Your task to perform on an android device: see creations saved in the google photos Image 0: 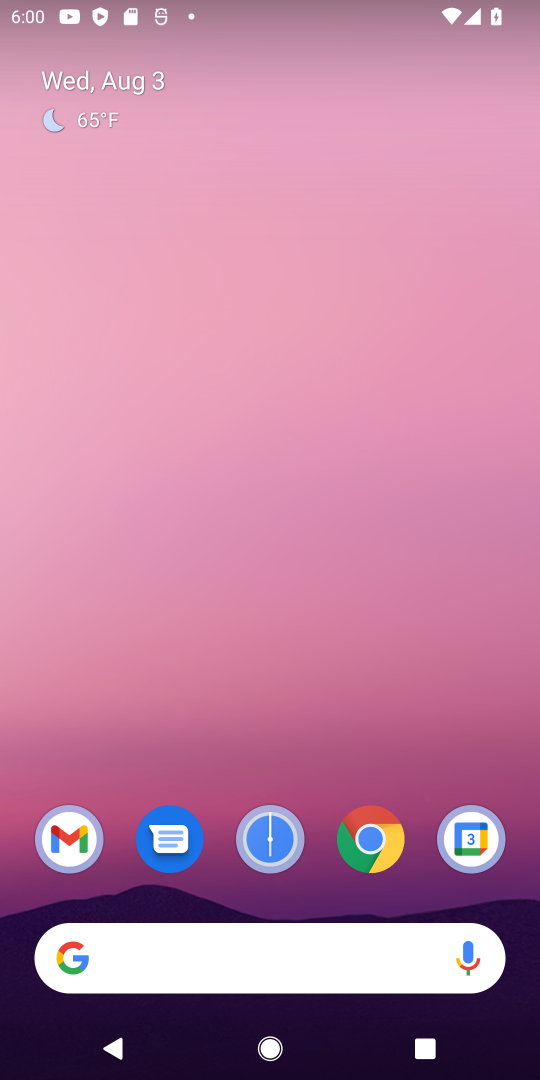
Step 0: drag from (232, 716) to (420, 86)
Your task to perform on an android device: see creations saved in the google photos Image 1: 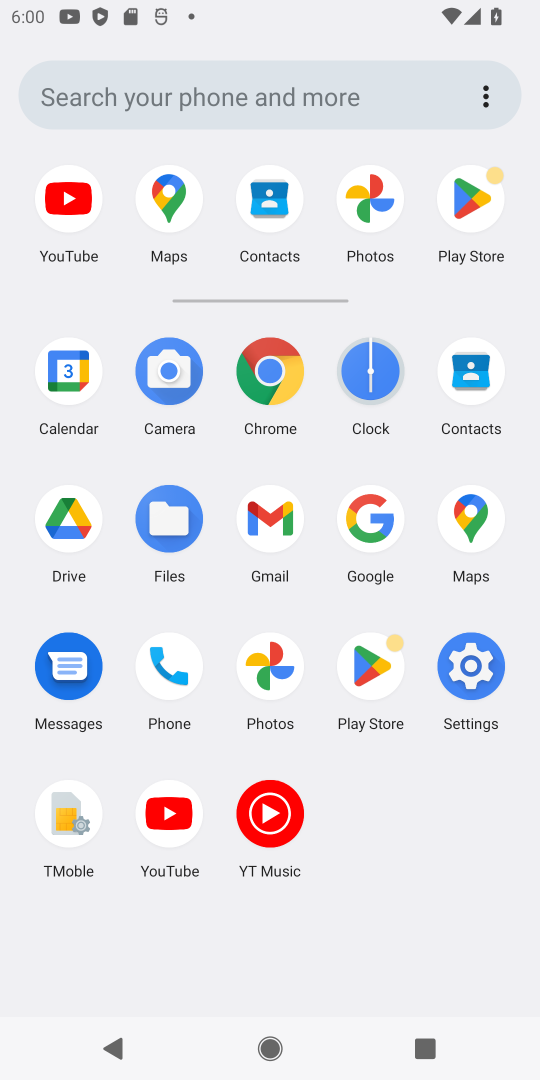
Step 1: click (280, 669)
Your task to perform on an android device: see creations saved in the google photos Image 2: 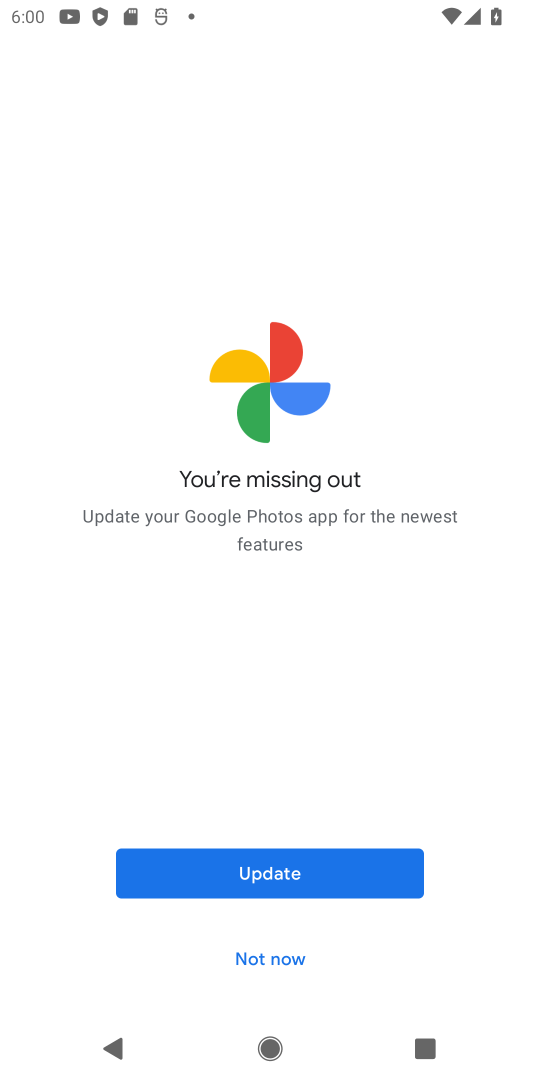
Step 2: click (256, 968)
Your task to perform on an android device: see creations saved in the google photos Image 3: 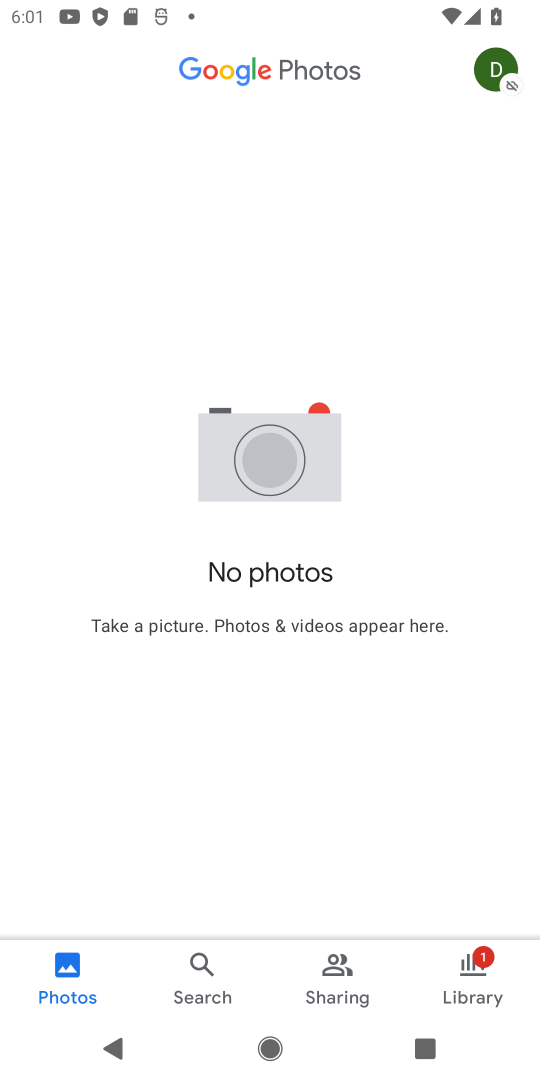
Step 3: click (490, 79)
Your task to perform on an android device: see creations saved in the google photos Image 4: 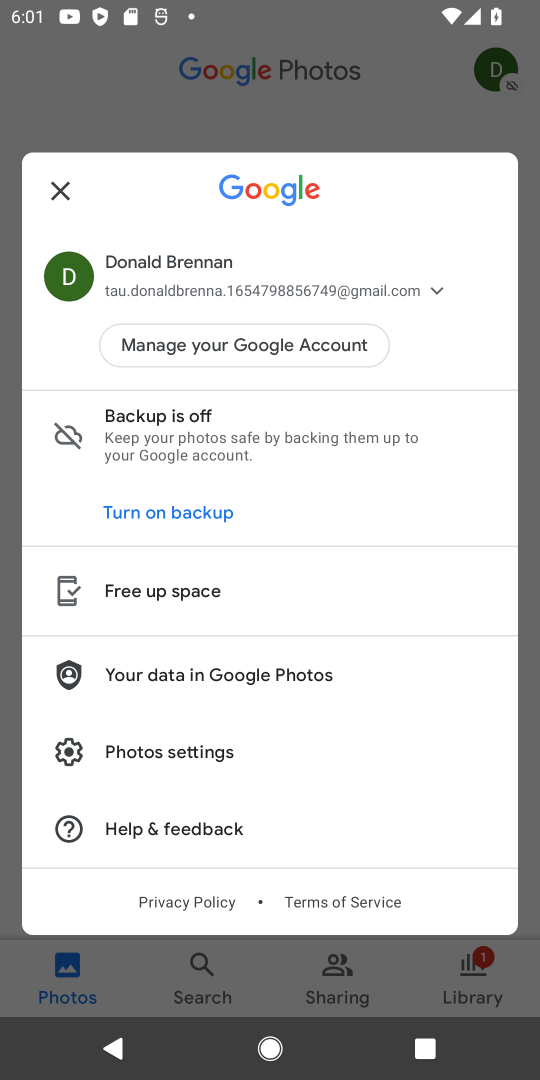
Step 4: task complete